Your task to perform on an android device: What's the weather today? Image 0: 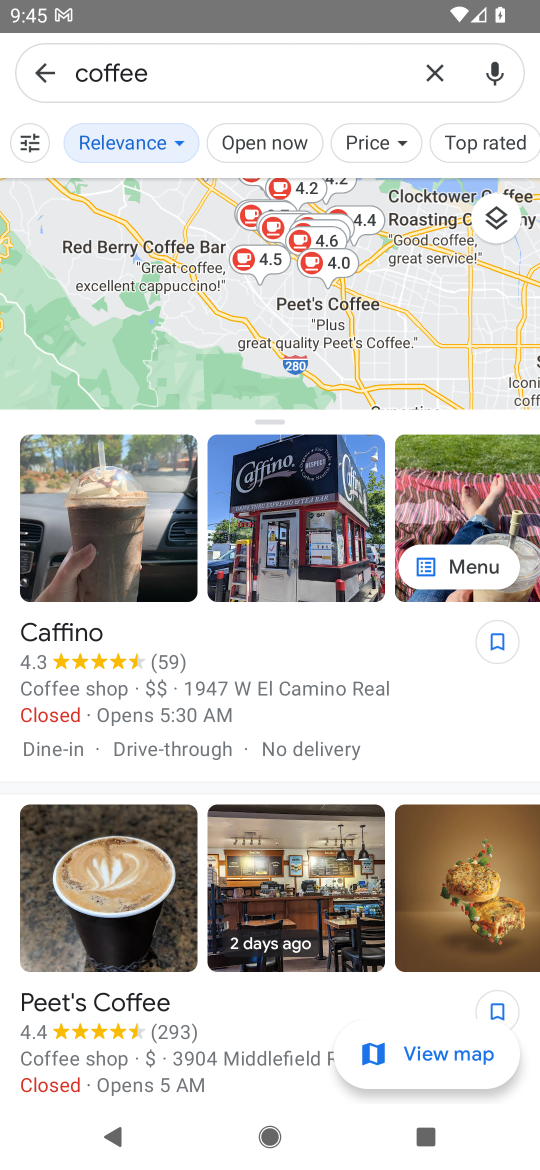
Step 0: press home button
Your task to perform on an android device: What's the weather today? Image 1: 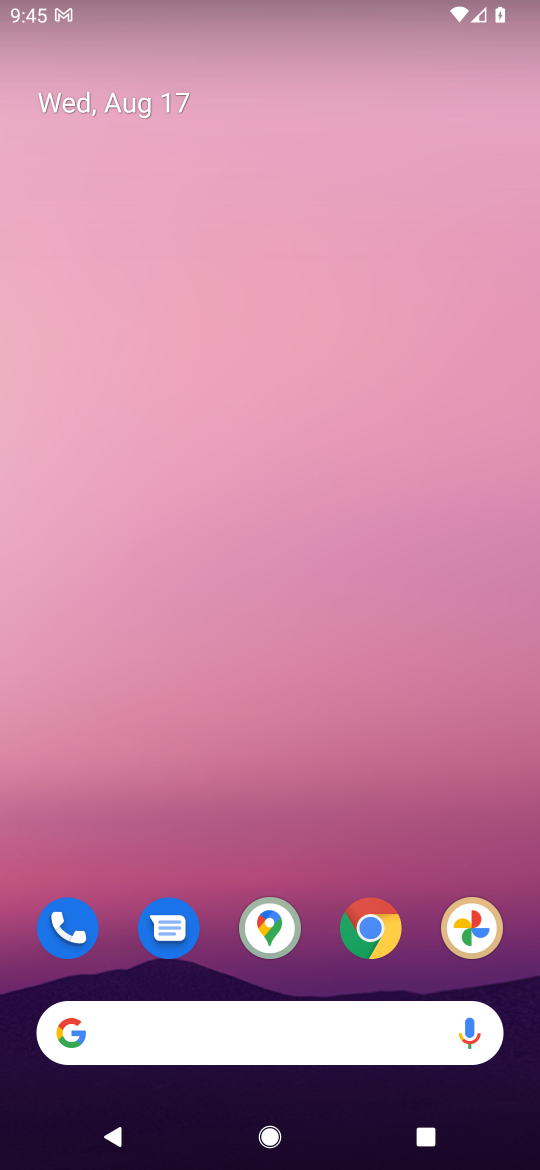
Step 1: click (232, 1046)
Your task to perform on an android device: What's the weather today? Image 2: 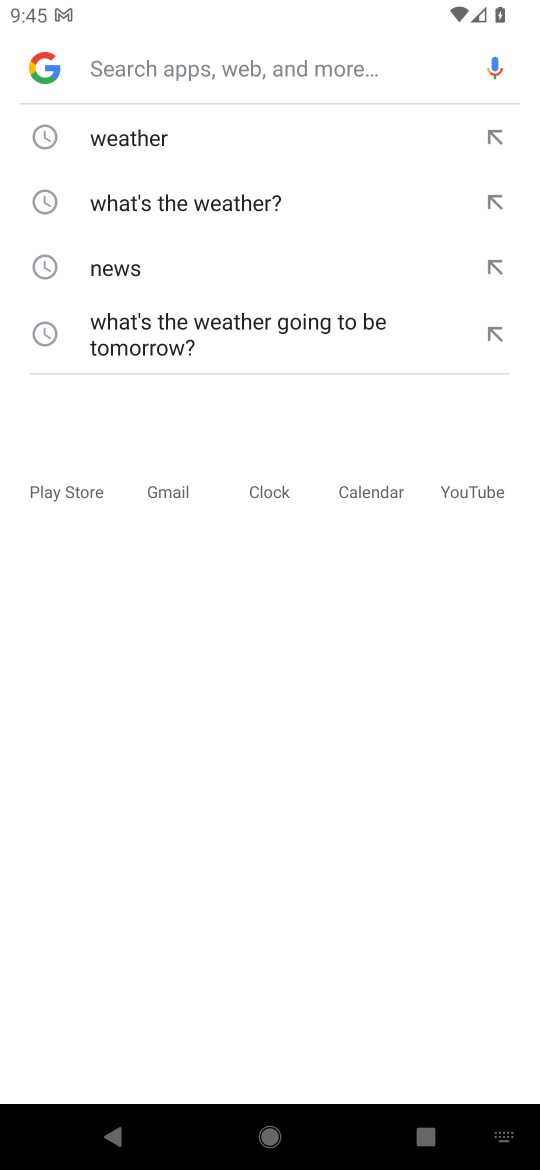
Step 2: click (183, 128)
Your task to perform on an android device: What's the weather today? Image 3: 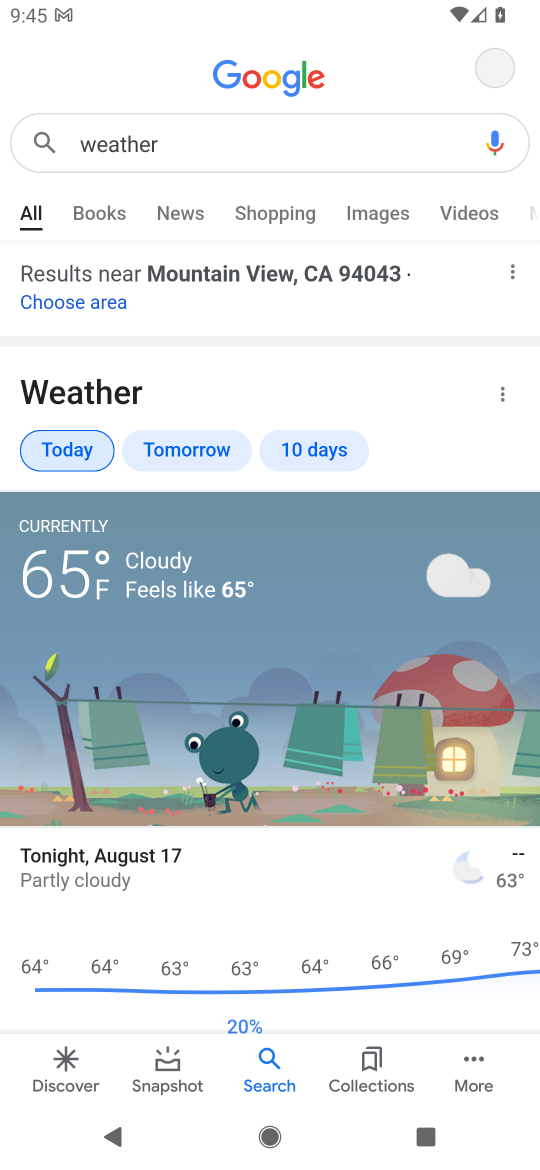
Step 3: task complete